Your task to perform on an android device: Go to CNN.com Image 0: 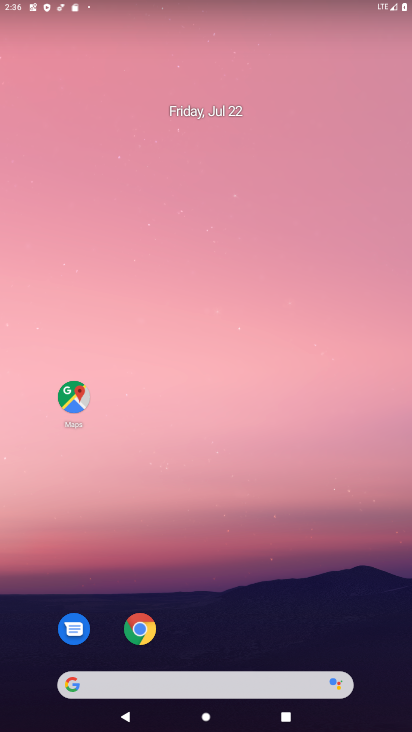
Step 0: click (138, 618)
Your task to perform on an android device: Go to CNN.com Image 1: 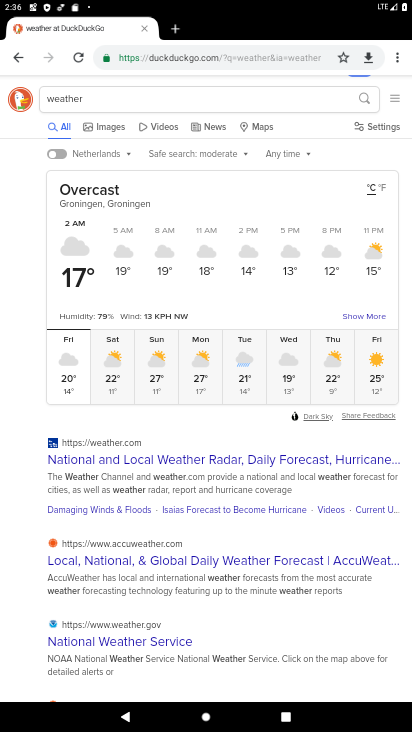
Step 1: click (207, 65)
Your task to perform on an android device: Go to CNN.com Image 2: 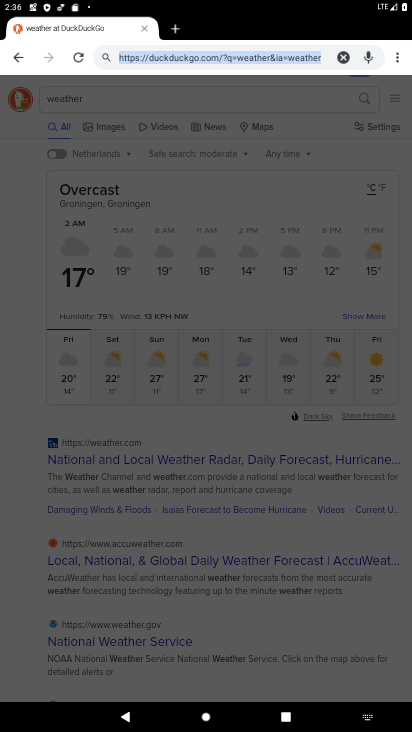
Step 2: type "cnn.com"
Your task to perform on an android device: Go to CNN.com Image 3: 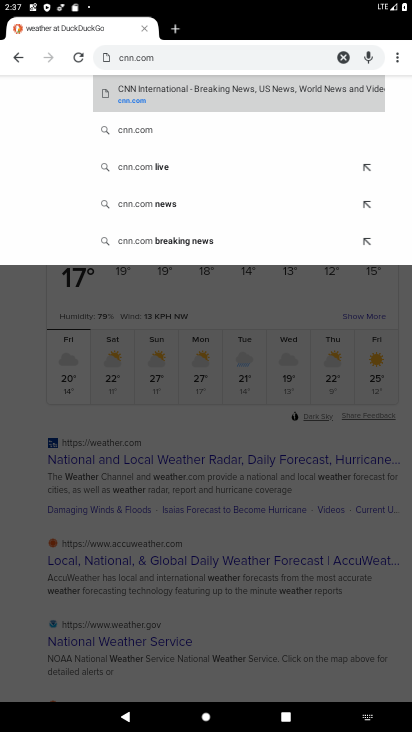
Step 3: click (168, 83)
Your task to perform on an android device: Go to CNN.com Image 4: 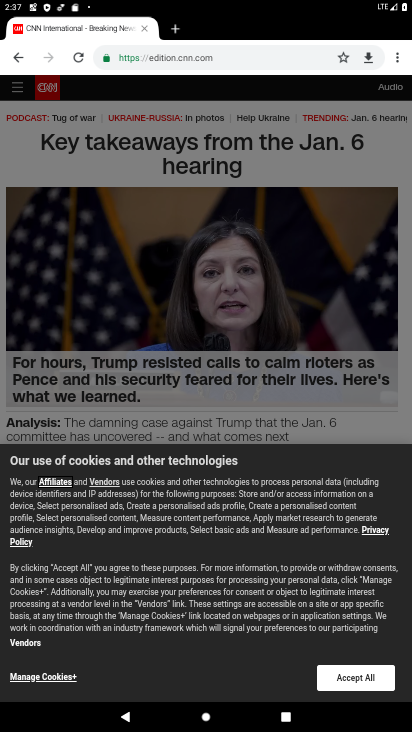
Step 4: task complete